Your task to perform on an android device: Open calendar and show me the fourth week of next month Image 0: 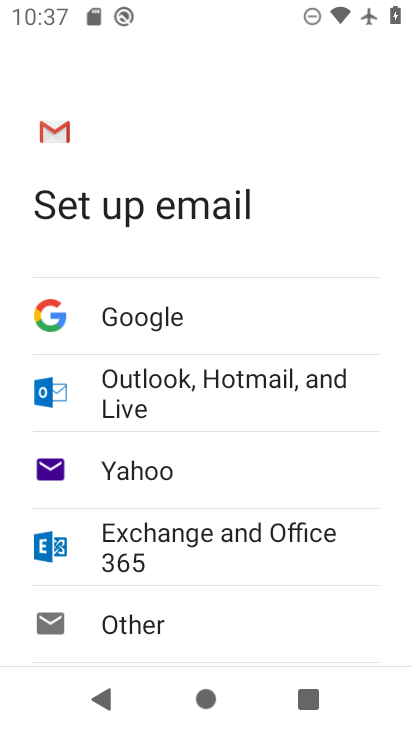
Step 0: press back button
Your task to perform on an android device: Open calendar and show me the fourth week of next month Image 1: 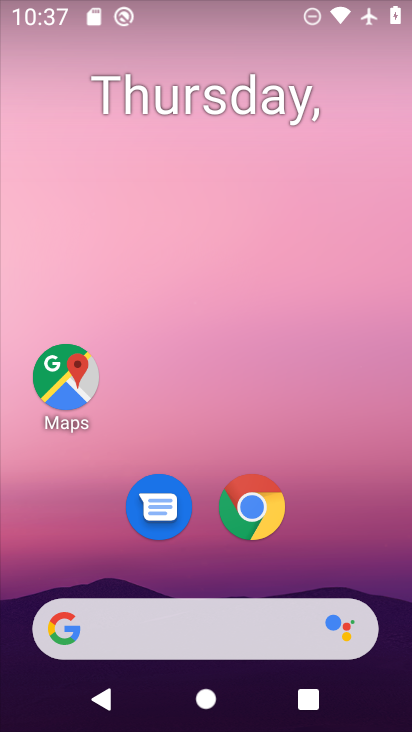
Step 1: drag from (348, 484) to (227, 0)
Your task to perform on an android device: Open calendar and show me the fourth week of next month Image 2: 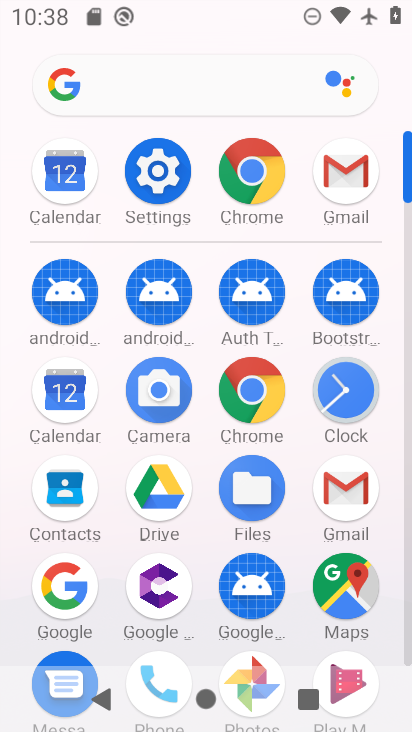
Step 2: click (61, 385)
Your task to perform on an android device: Open calendar and show me the fourth week of next month Image 3: 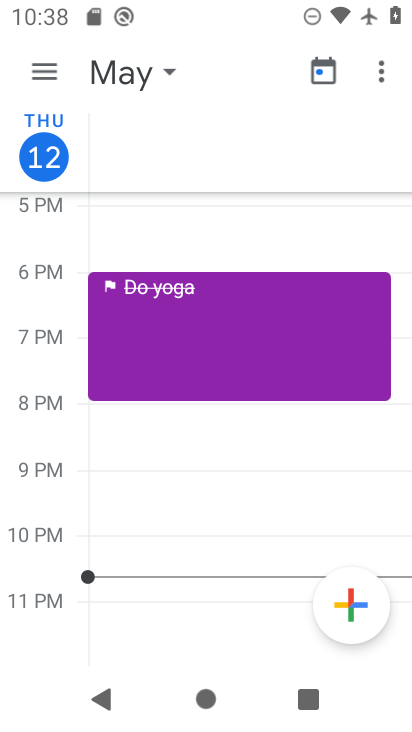
Step 3: click (53, 61)
Your task to perform on an android device: Open calendar and show me the fourth week of next month Image 4: 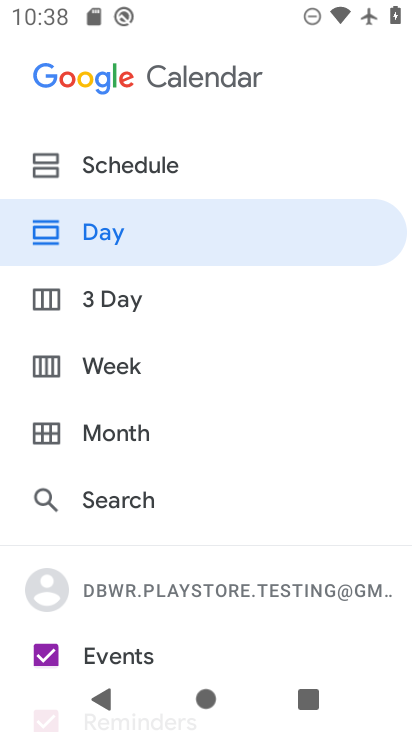
Step 4: click (127, 358)
Your task to perform on an android device: Open calendar and show me the fourth week of next month Image 5: 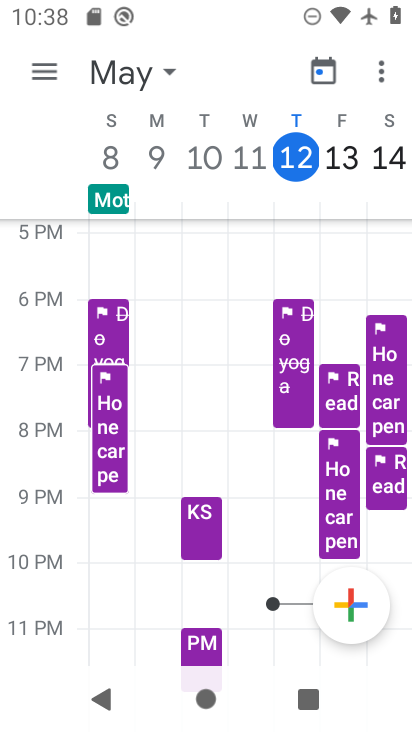
Step 5: click (133, 61)
Your task to perform on an android device: Open calendar and show me the fourth week of next month Image 6: 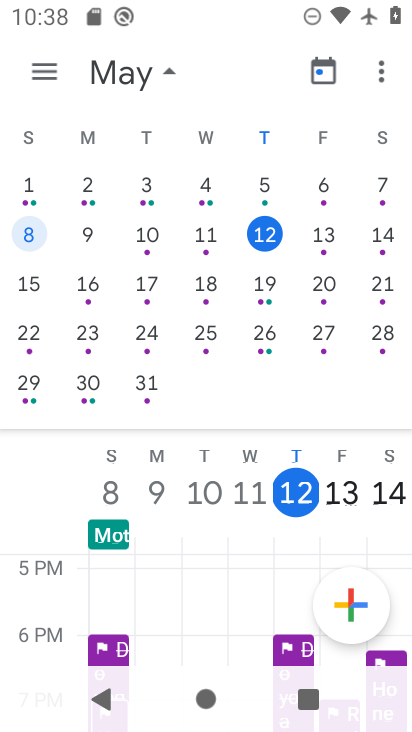
Step 6: drag from (378, 222) to (10, 294)
Your task to perform on an android device: Open calendar and show me the fourth week of next month Image 7: 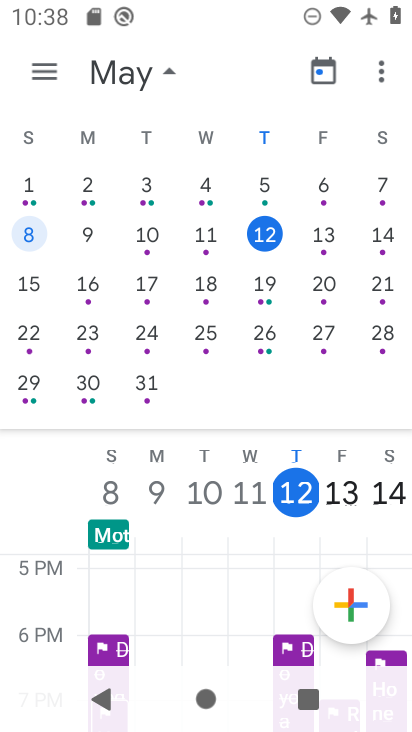
Step 7: drag from (342, 297) to (11, 244)
Your task to perform on an android device: Open calendar and show me the fourth week of next month Image 8: 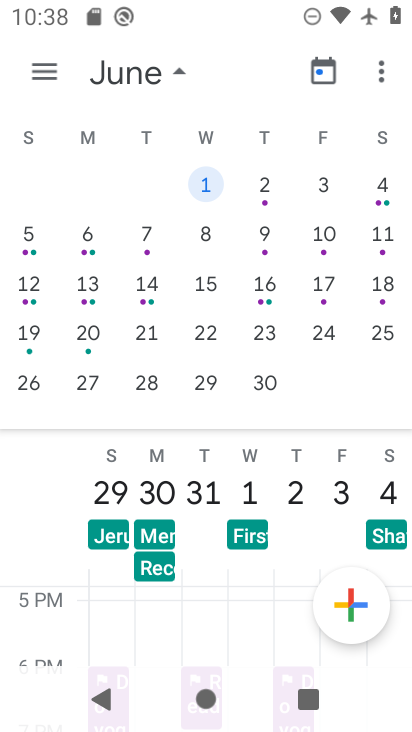
Step 8: click (24, 322)
Your task to perform on an android device: Open calendar and show me the fourth week of next month Image 9: 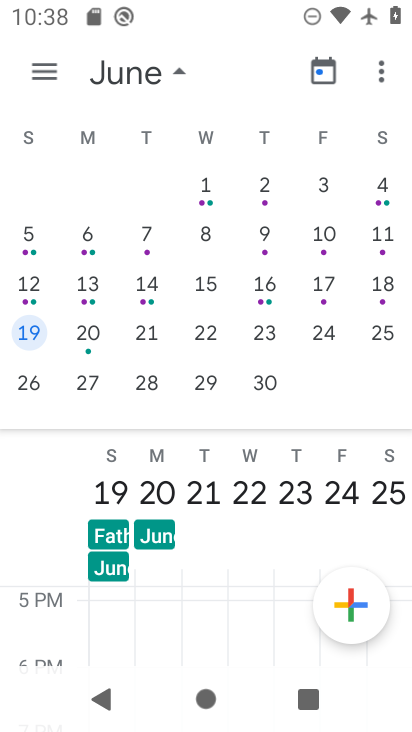
Step 9: click (51, 61)
Your task to perform on an android device: Open calendar and show me the fourth week of next month Image 10: 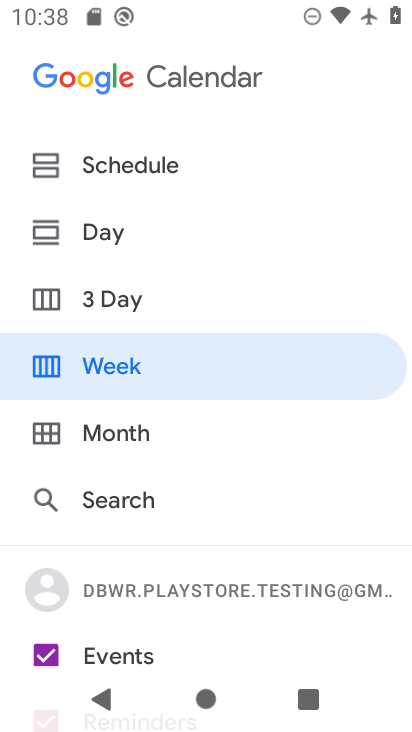
Step 10: click (100, 371)
Your task to perform on an android device: Open calendar and show me the fourth week of next month Image 11: 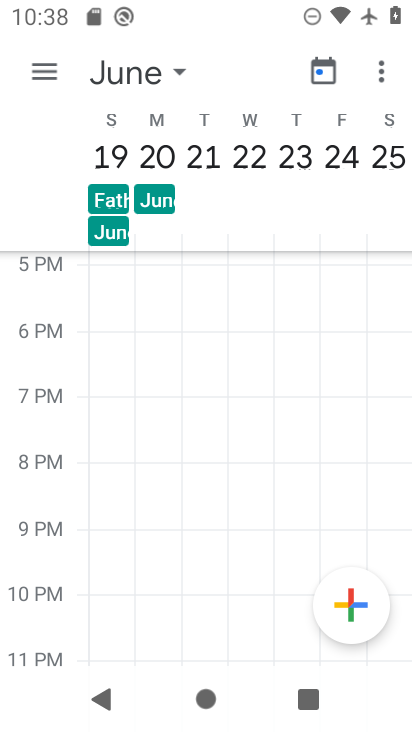
Step 11: task complete